Your task to perform on an android device: all mails in gmail Image 0: 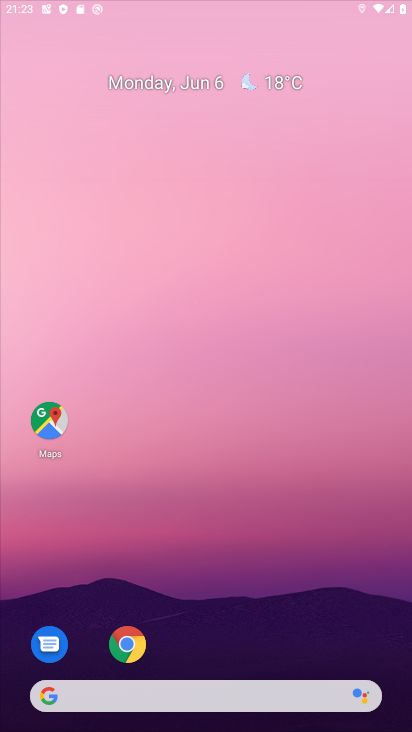
Step 0: press home button
Your task to perform on an android device: all mails in gmail Image 1: 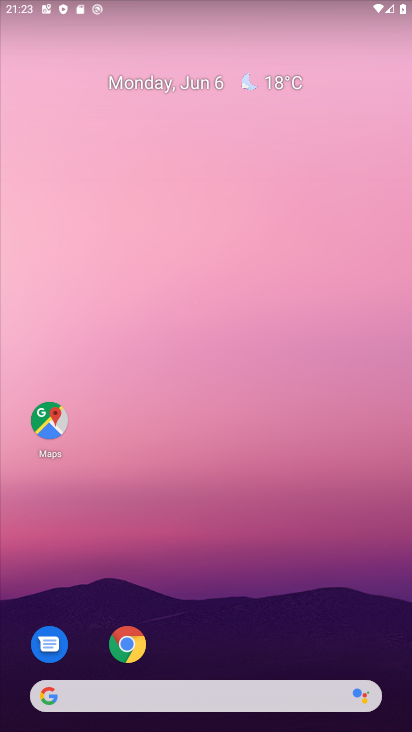
Step 1: drag from (331, 597) to (322, 154)
Your task to perform on an android device: all mails in gmail Image 2: 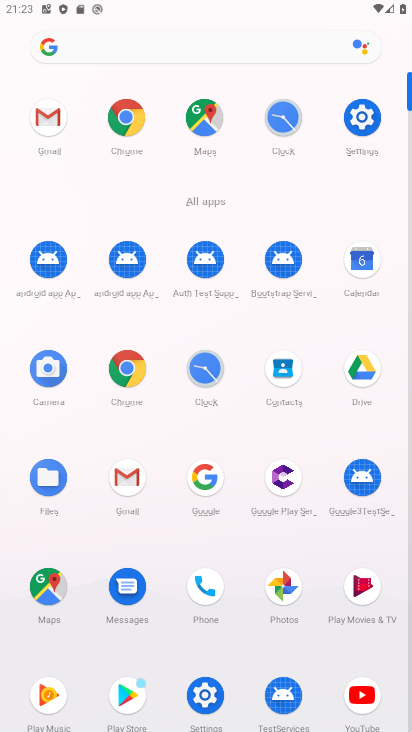
Step 2: click (127, 482)
Your task to perform on an android device: all mails in gmail Image 3: 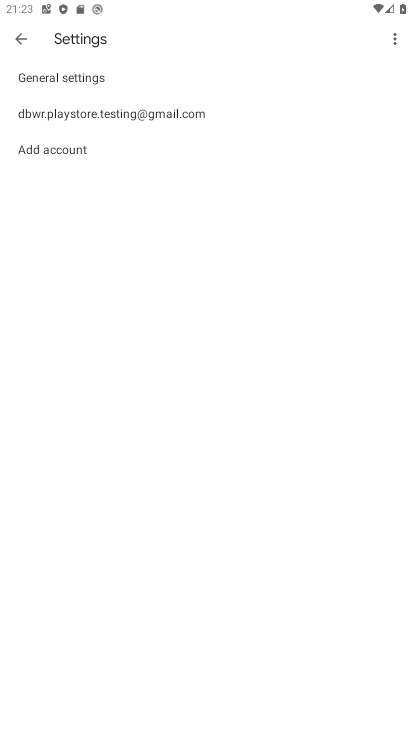
Step 3: click (203, 117)
Your task to perform on an android device: all mails in gmail Image 4: 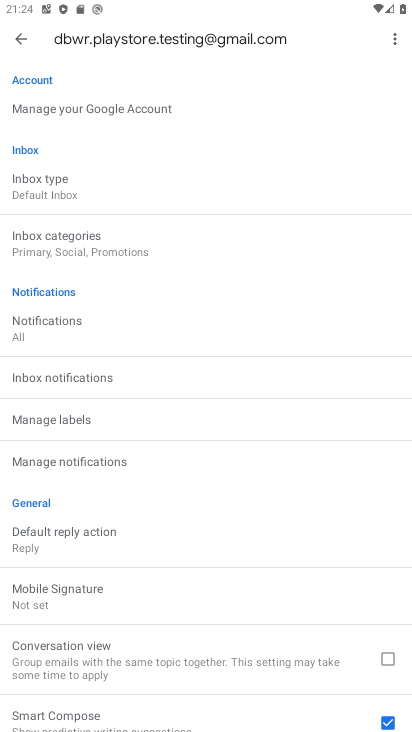
Step 4: drag from (263, 608) to (293, 304)
Your task to perform on an android device: all mails in gmail Image 5: 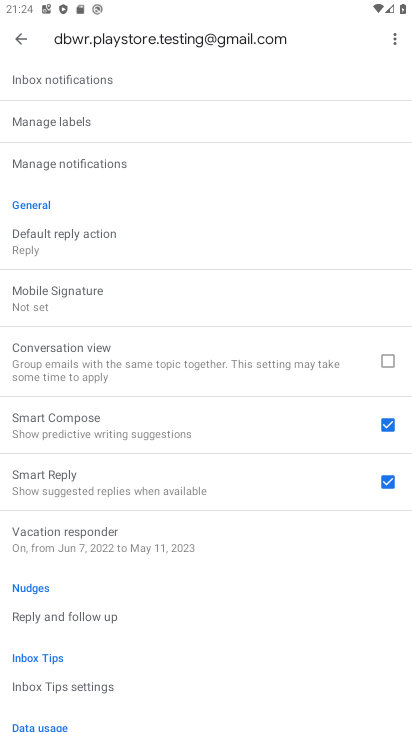
Step 5: click (23, 49)
Your task to perform on an android device: all mails in gmail Image 6: 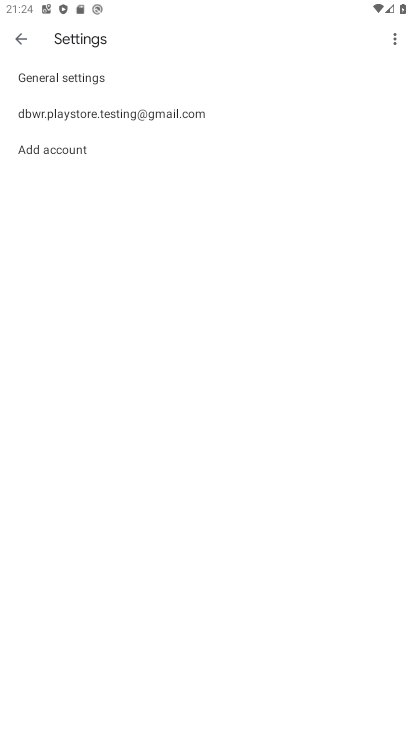
Step 6: click (19, 43)
Your task to perform on an android device: all mails in gmail Image 7: 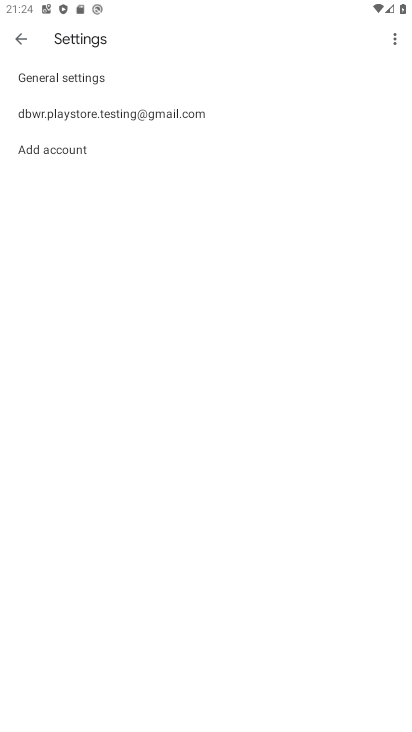
Step 7: click (28, 36)
Your task to perform on an android device: all mails in gmail Image 8: 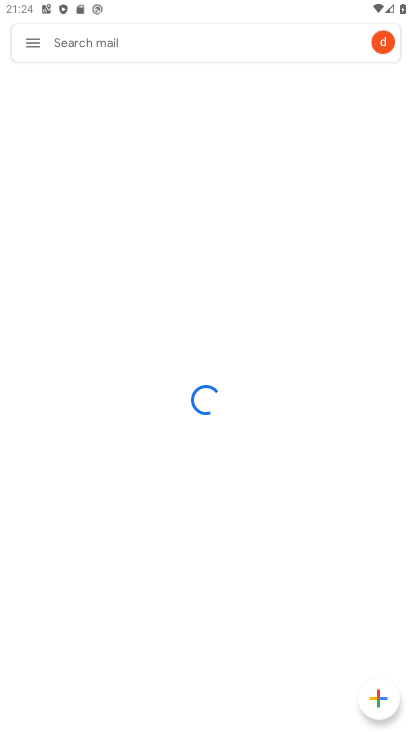
Step 8: click (28, 40)
Your task to perform on an android device: all mails in gmail Image 9: 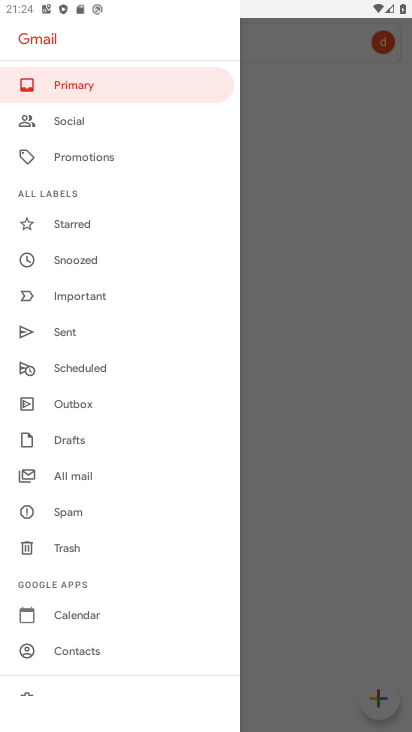
Step 9: click (76, 472)
Your task to perform on an android device: all mails in gmail Image 10: 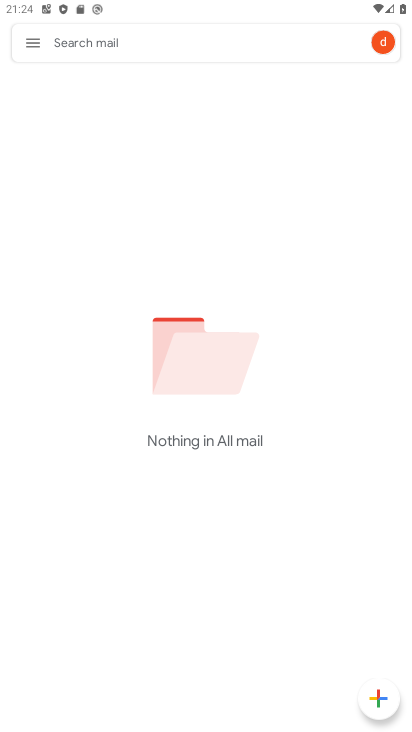
Step 10: task complete